Your task to perform on an android device: turn off priority inbox in the gmail app Image 0: 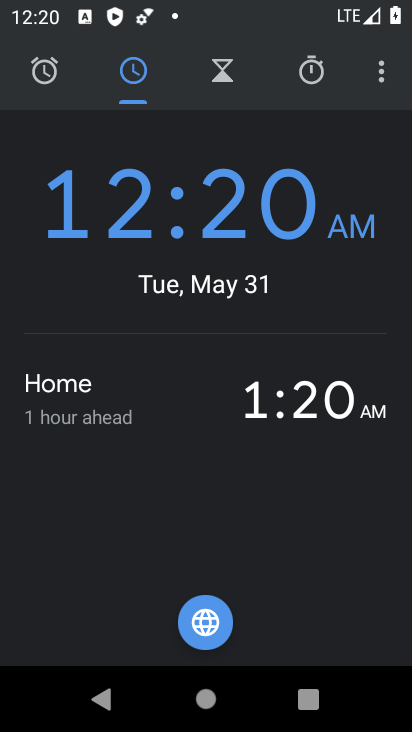
Step 0: press home button
Your task to perform on an android device: turn off priority inbox in the gmail app Image 1: 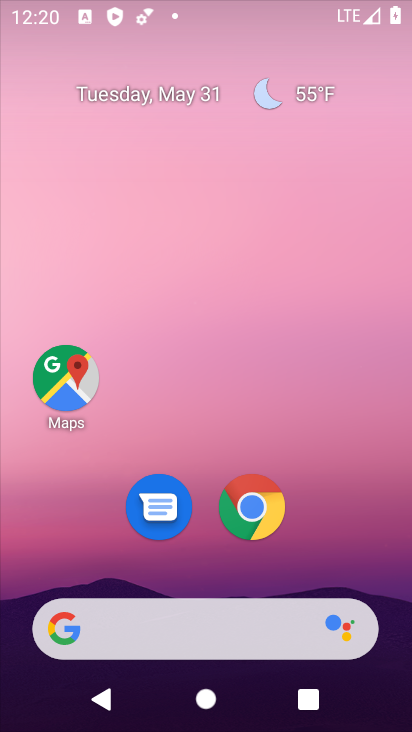
Step 1: drag from (380, 626) to (299, 81)
Your task to perform on an android device: turn off priority inbox in the gmail app Image 2: 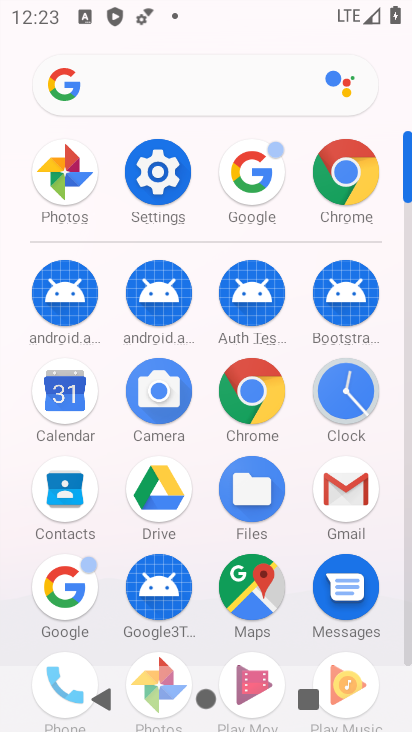
Step 2: click (337, 490)
Your task to perform on an android device: turn off priority inbox in the gmail app Image 3: 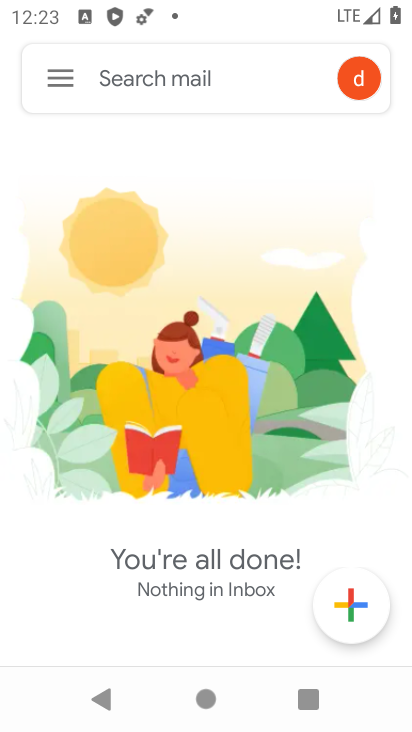
Step 3: click (65, 77)
Your task to perform on an android device: turn off priority inbox in the gmail app Image 4: 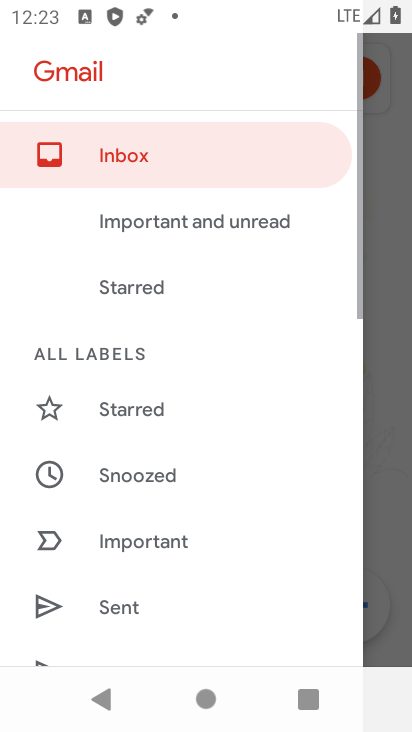
Step 4: drag from (81, 603) to (249, 14)
Your task to perform on an android device: turn off priority inbox in the gmail app Image 5: 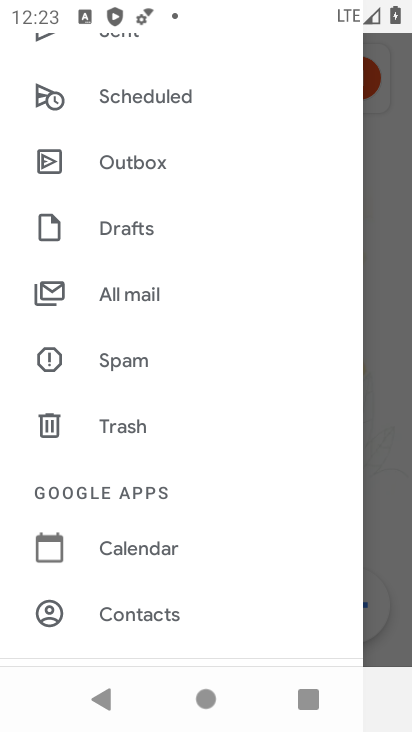
Step 5: drag from (161, 594) to (237, 193)
Your task to perform on an android device: turn off priority inbox in the gmail app Image 6: 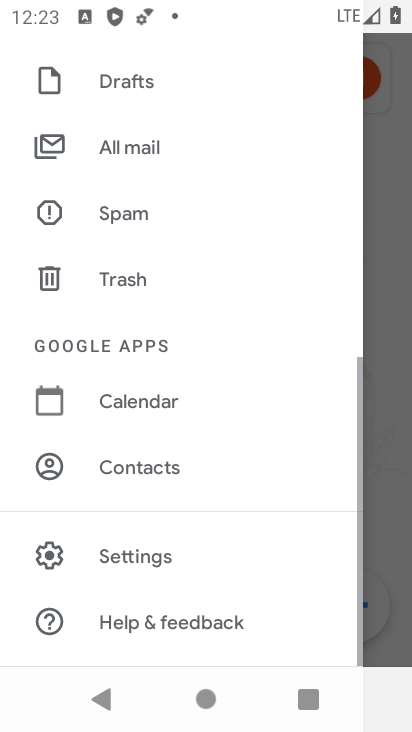
Step 6: click (150, 550)
Your task to perform on an android device: turn off priority inbox in the gmail app Image 7: 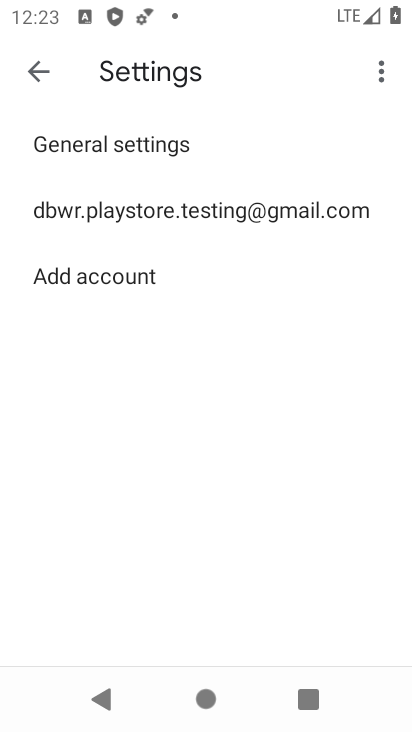
Step 7: click (120, 221)
Your task to perform on an android device: turn off priority inbox in the gmail app Image 8: 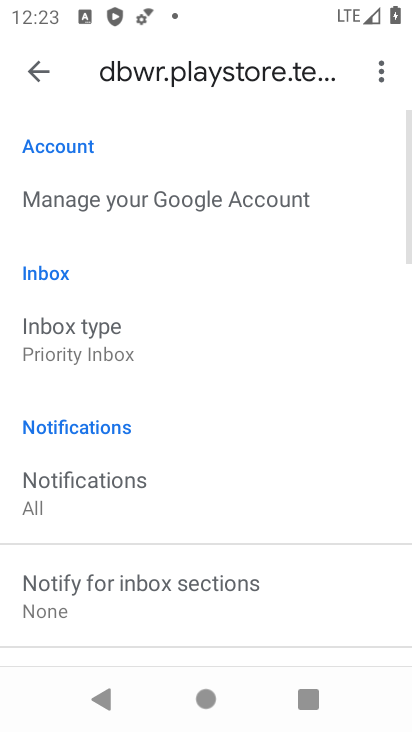
Step 8: click (117, 336)
Your task to perform on an android device: turn off priority inbox in the gmail app Image 9: 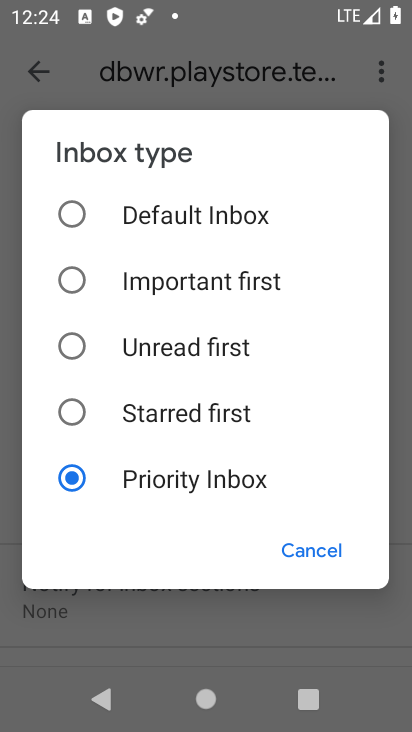
Step 9: click (69, 221)
Your task to perform on an android device: turn off priority inbox in the gmail app Image 10: 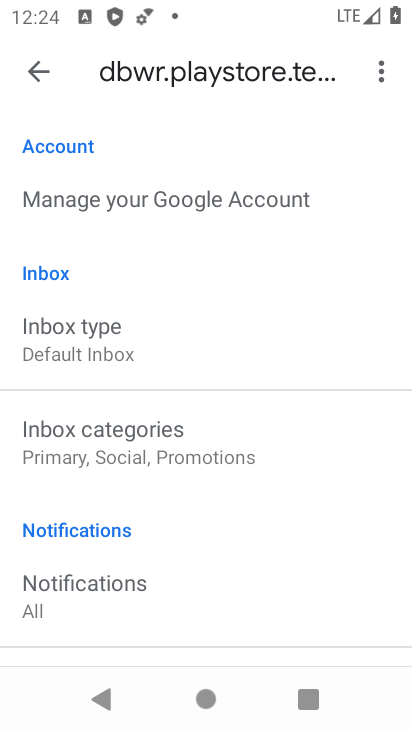
Step 10: task complete